Your task to perform on an android device: Go to settings Image 0: 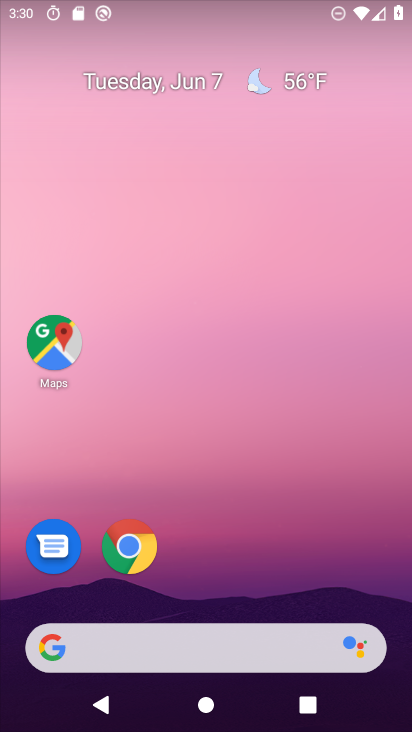
Step 0: drag from (332, 543) to (230, 10)
Your task to perform on an android device: Go to settings Image 1: 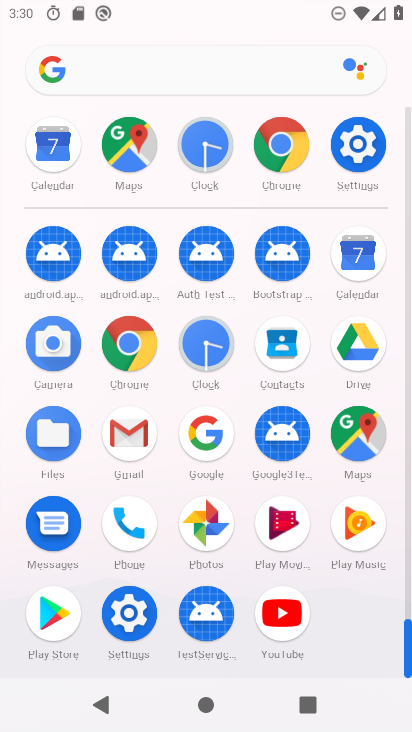
Step 1: click (128, 609)
Your task to perform on an android device: Go to settings Image 2: 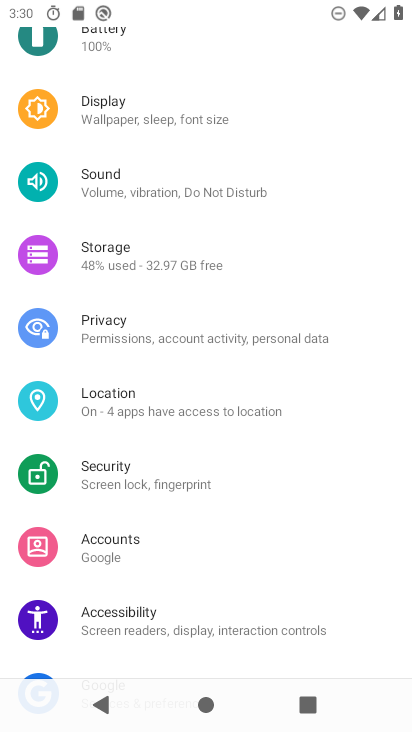
Step 2: task complete